Your task to perform on an android device: Go to Wikipedia Image 0: 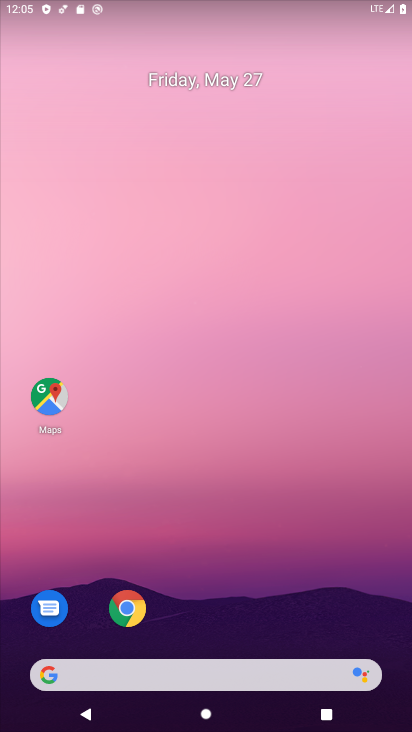
Step 0: press home button
Your task to perform on an android device: Go to Wikipedia Image 1: 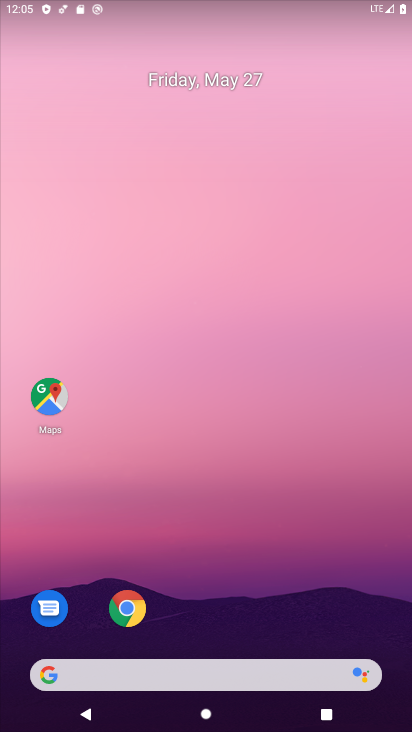
Step 1: click (124, 608)
Your task to perform on an android device: Go to Wikipedia Image 2: 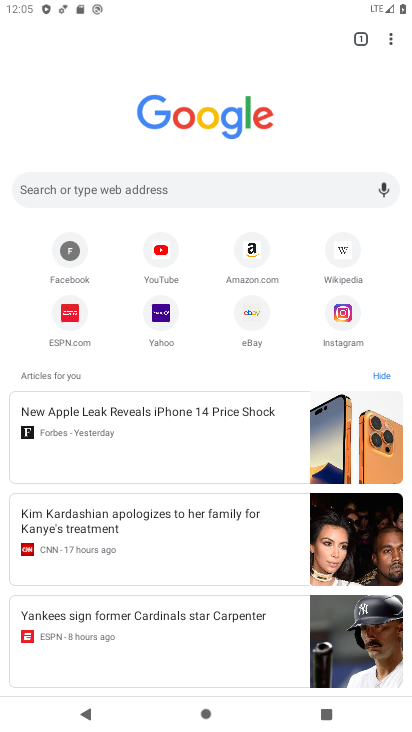
Step 2: click (337, 250)
Your task to perform on an android device: Go to Wikipedia Image 3: 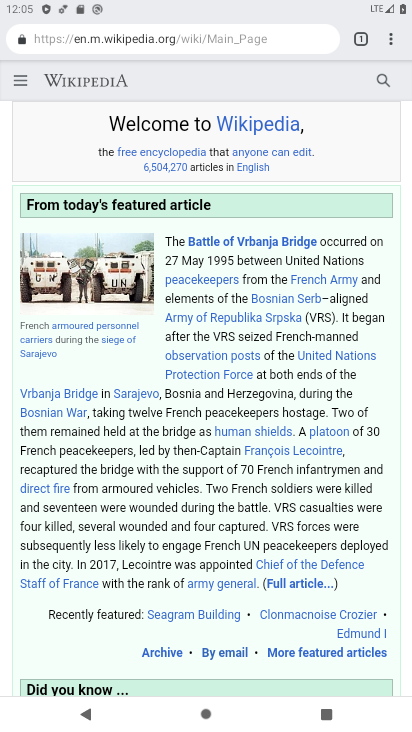
Step 3: task complete